Your task to perform on an android device: Open ESPN.com Image 0: 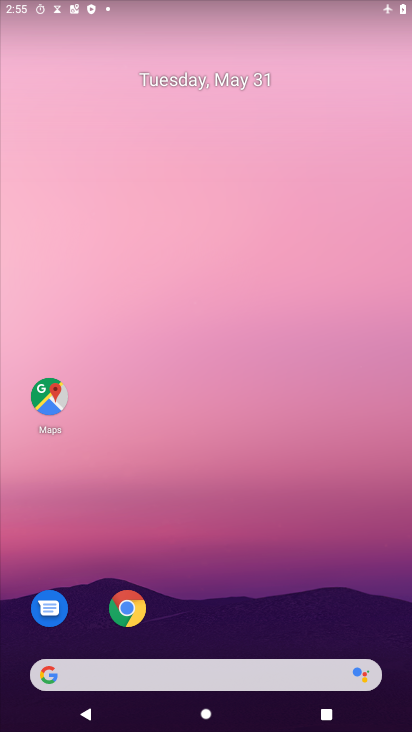
Step 0: click (115, 611)
Your task to perform on an android device: Open ESPN.com Image 1: 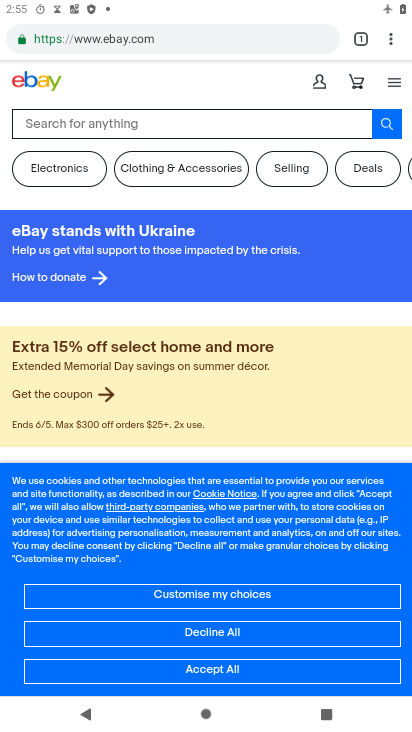
Step 1: click (166, 35)
Your task to perform on an android device: Open ESPN.com Image 2: 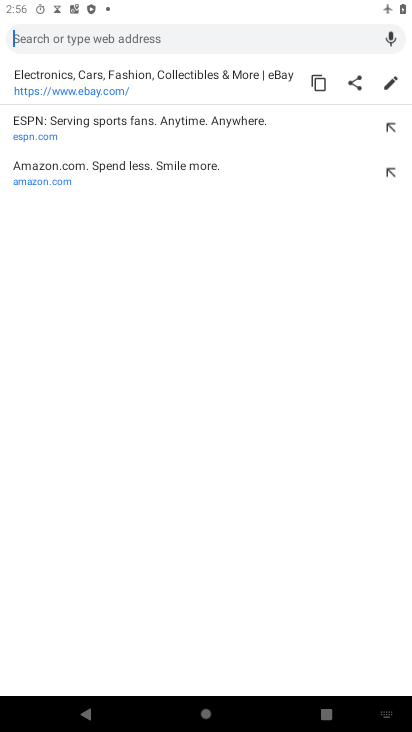
Step 2: type "ESPN.com"
Your task to perform on an android device: Open ESPN.com Image 3: 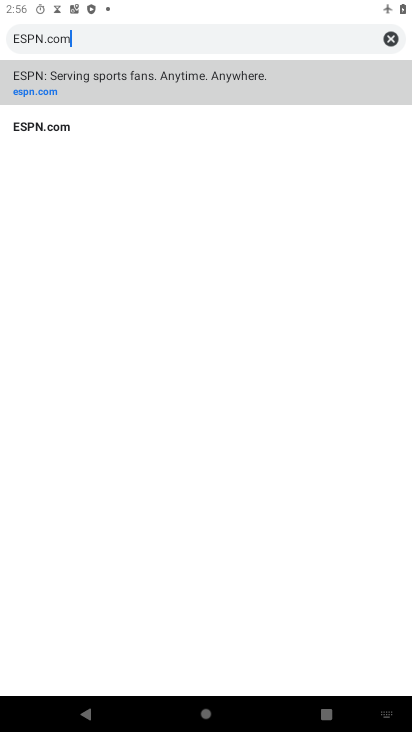
Step 3: click (53, 119)
Your task to perform on an android device: Open ESPN.com Image 4: 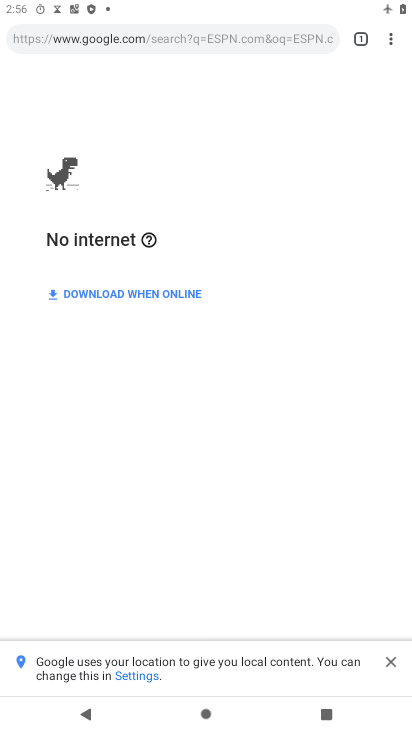
Step 4: task complete